Your task to perform on an android device: Open maps Image 0: 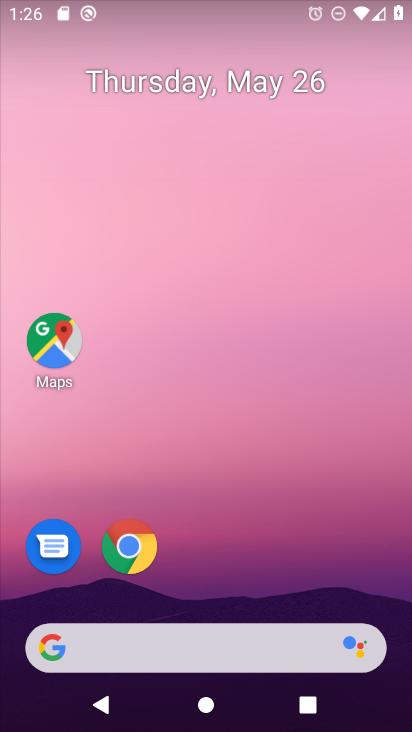
Step 0: click (54, 357)
Your task to perform on an android device: Open maps Image 1: 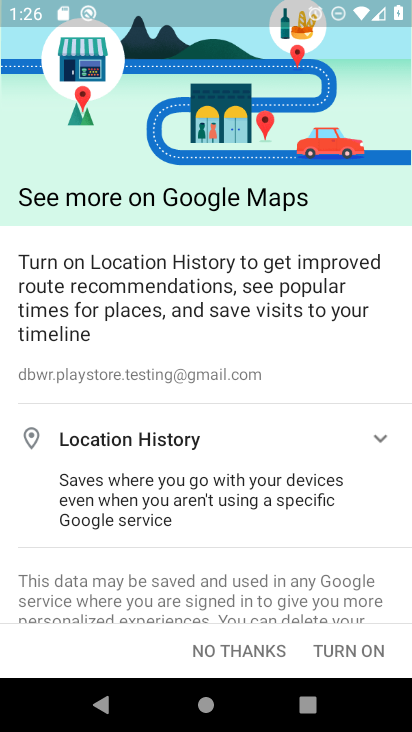
Step 1: click (370, 659)
Your task to perform on an android device: Open maps Image 2: 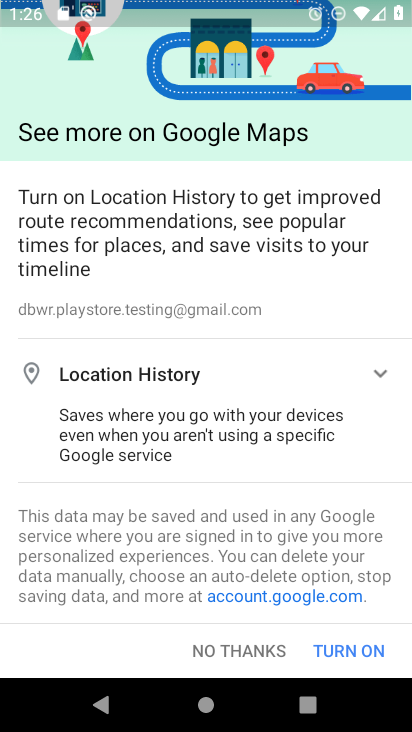
Step 2: click (370, 659)
Your task to perform on an android device: Open maps Image 3: 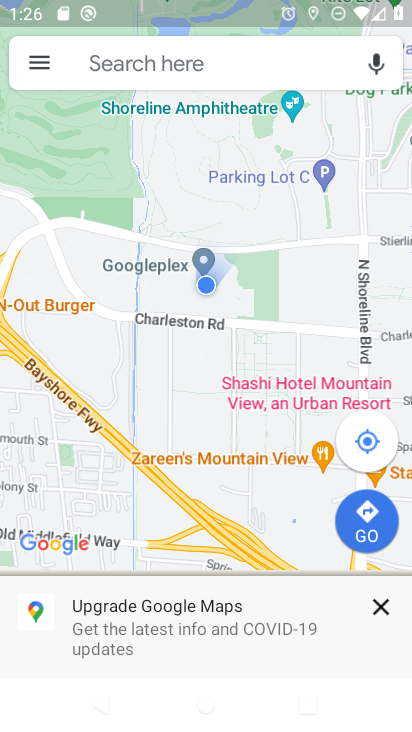
Step 3: click (385, 614)
Your task to perform on an android device: Open maps Image 4: 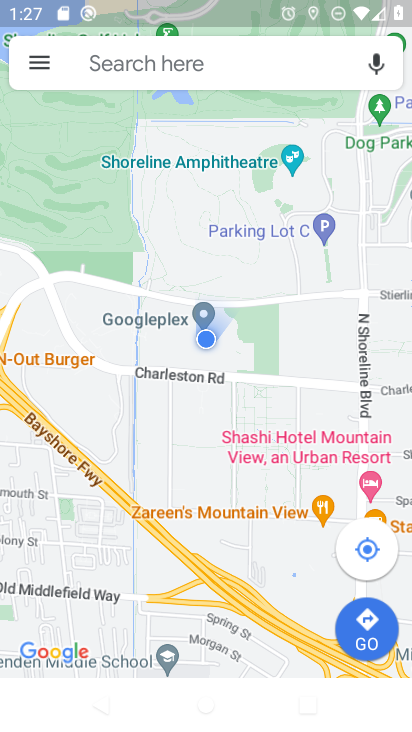
Step 4: task complete